Your task to perform on an android device: Toggle the flashlight Image 0: 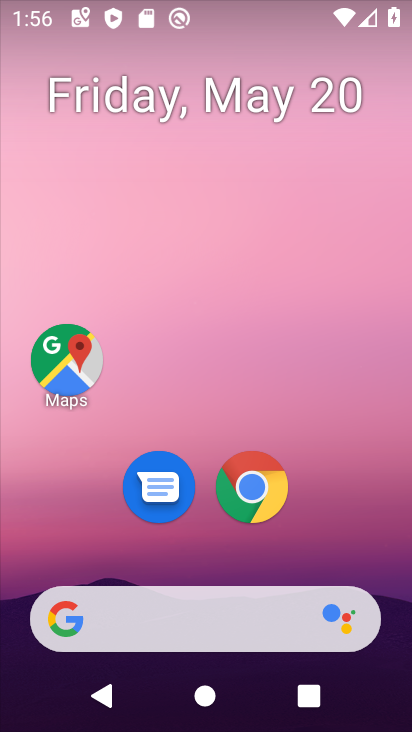
Step 0: drag from (305, 420) to (349, 3)
Your task to perform on an android device: Toggle the flashlight Image 1: 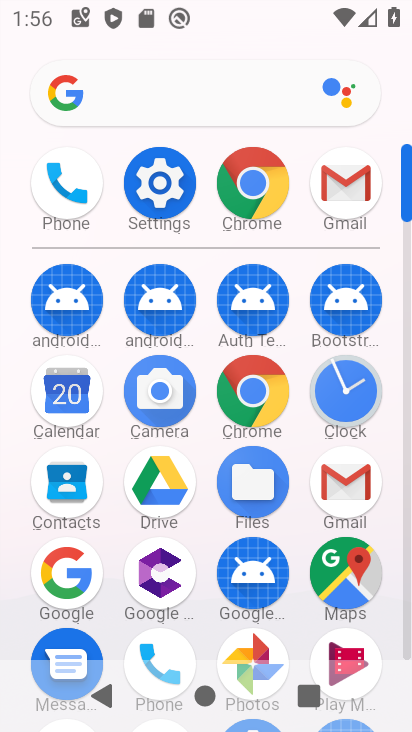
Step 1: click (153, 191)
Your task to perform on an android device: Toggle the flashlight Image 2: 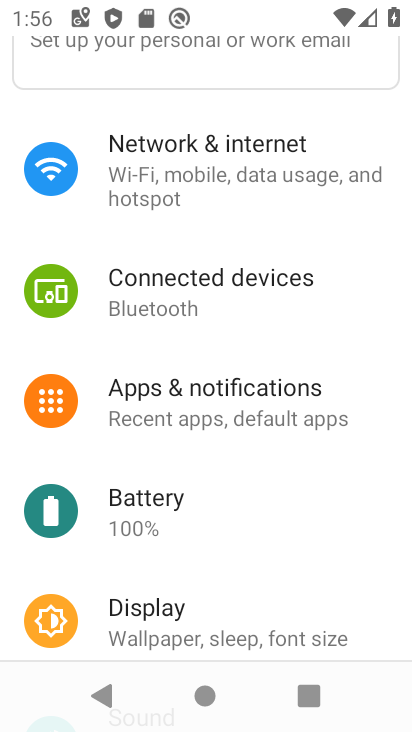
Step 2: task complete